Your task to perform on an android device: all mails in gmail Image 0: 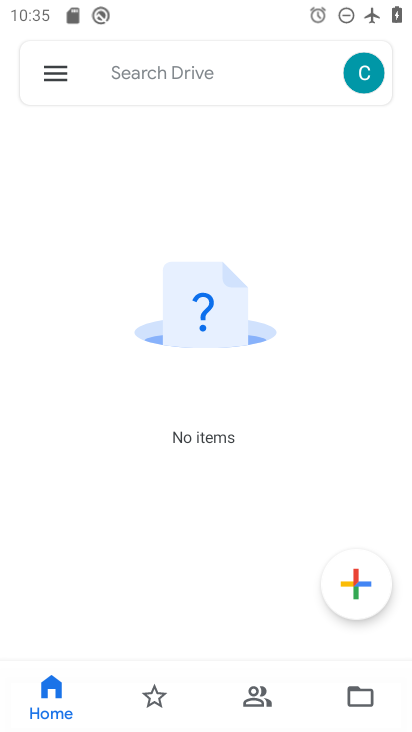
Step 0: press home button
Your task to perform on an android device: all mails in gmail Image 1: 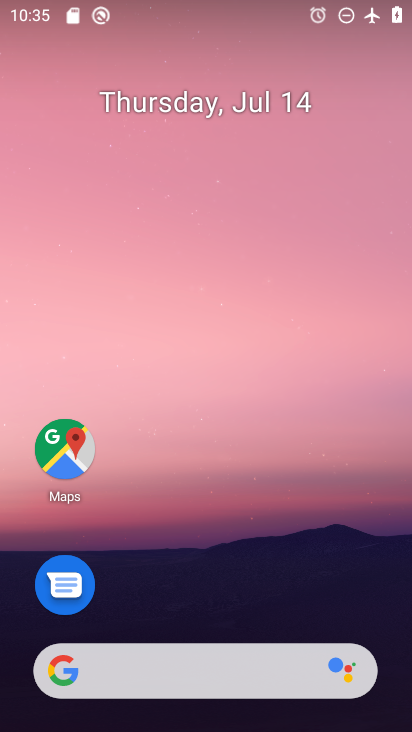
Step 1: drag from (239, 604) to (201, 20)
Your task to perform on an android device: all mails in gmail Image 2: 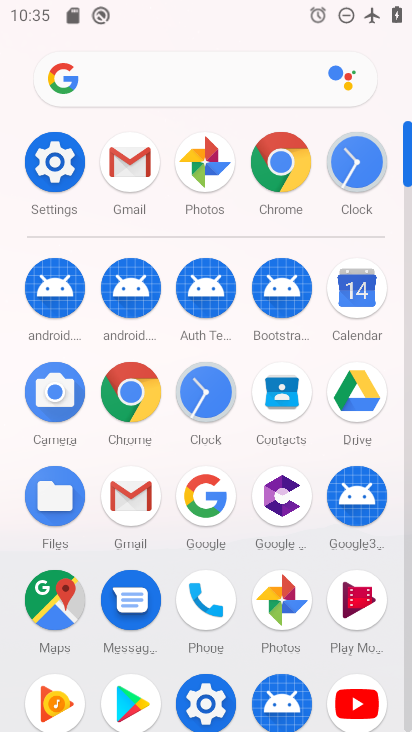
Step 2: click (116, 504)
Your task to perform on an android device: all mails in gmail Image 3: 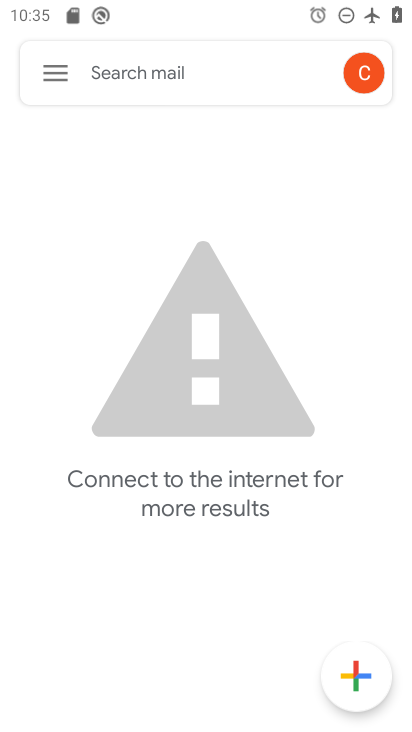
Step 3: click (54, 74)
Your task to perform on an android device: all mails in gmail Image 4: 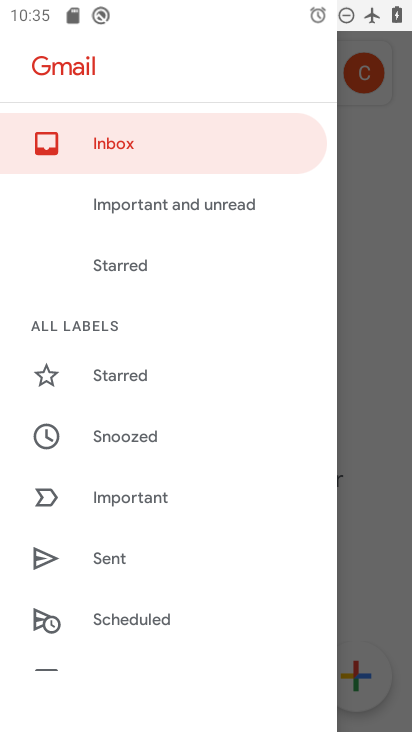
Step 4: drag from (199, 584) to (210, 93)
Your task to perform on an android device: all mails in gmail Image 5: 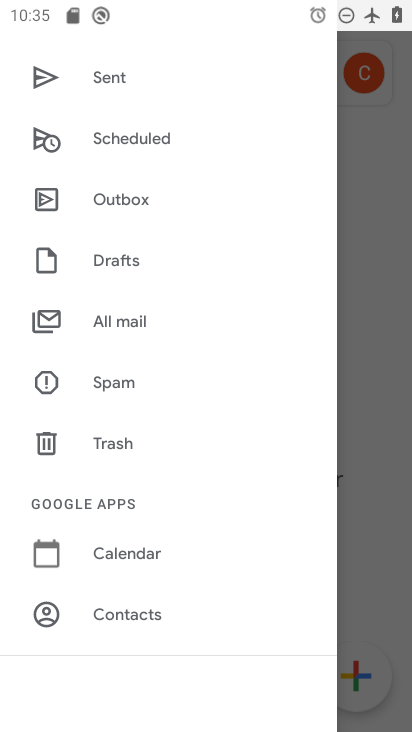
Step 5: click (91, 330)
Your task to perform on an android device: all mails in gmail Image 6: 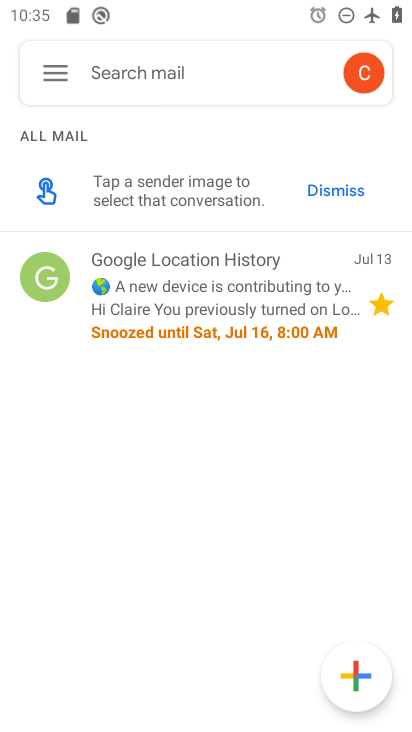
Step 6: task complete